Your task to perform on an android device: Go to display settings Image 0: 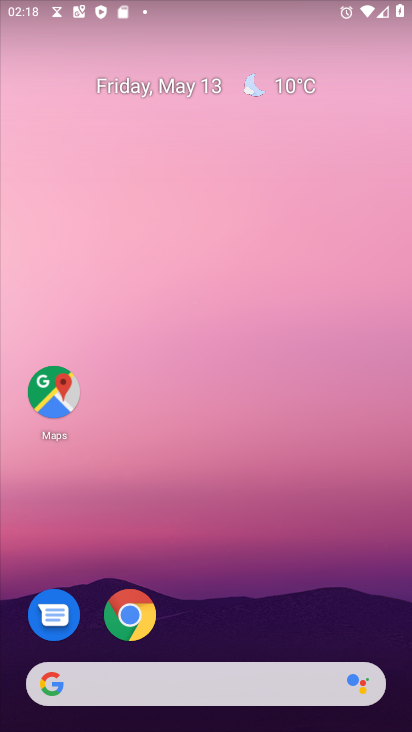
Step 0: drag from (203, 631) to (23, 136)
Your task to perform on an android device: Go to display settings Image 1: 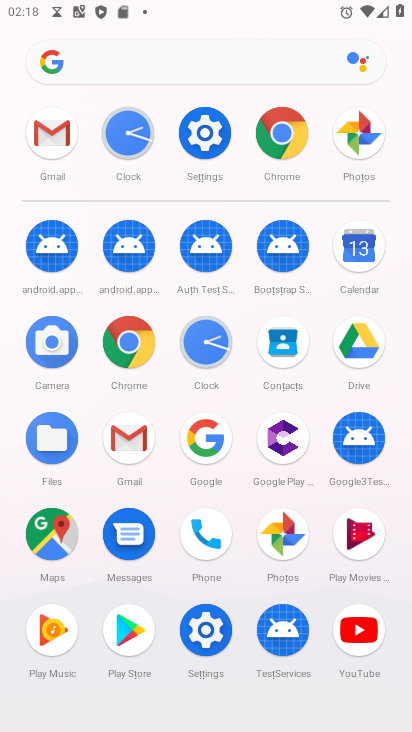
Step 1: click (207, 631)
Your task to perform on an android device: Go to display settings Image 2: 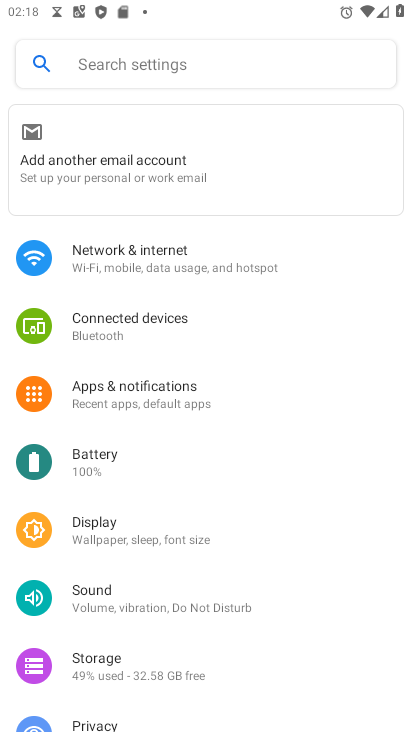
Step 2: click (128, 533)
Your task to perform on an android device: Go to display settings Image 3: 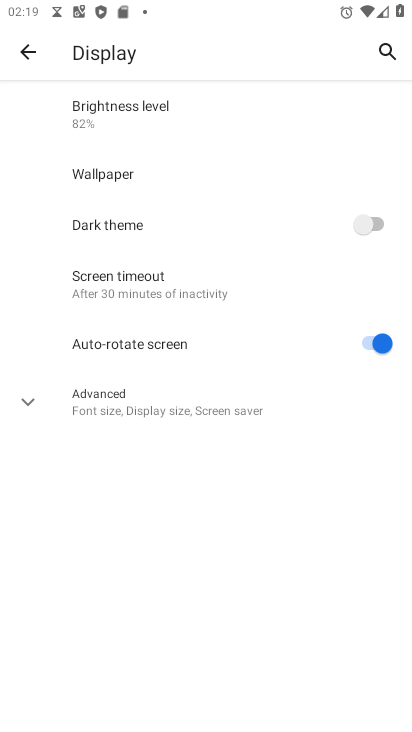
Step 3: click (135, 404)
Your task to perform on an android device: Go to display settings Image 4: 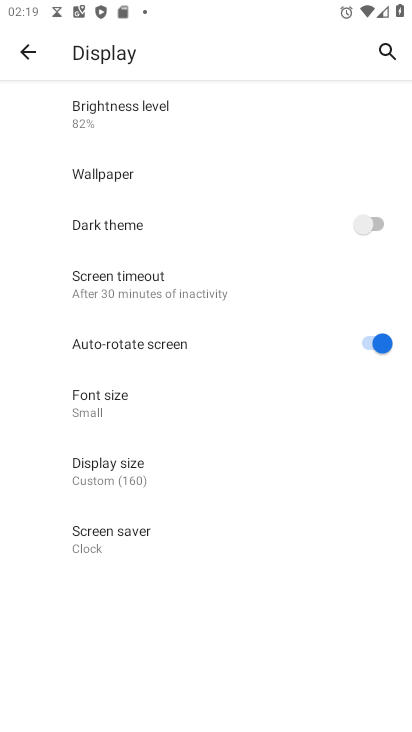
Step 4: task complete